Your task to perform on an android device: delete the emails in spam in the gmail app Image 0: 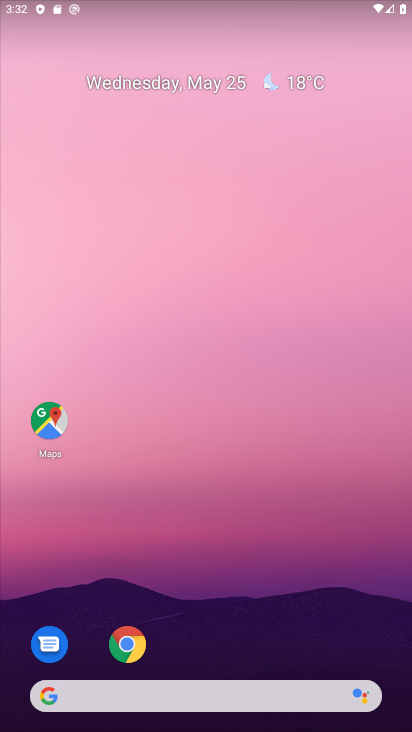
Step 0: drag from (257, 587) to (212, 175)
Your task to perform on an android device: delete the emails in spam in the gmail app Image 1: 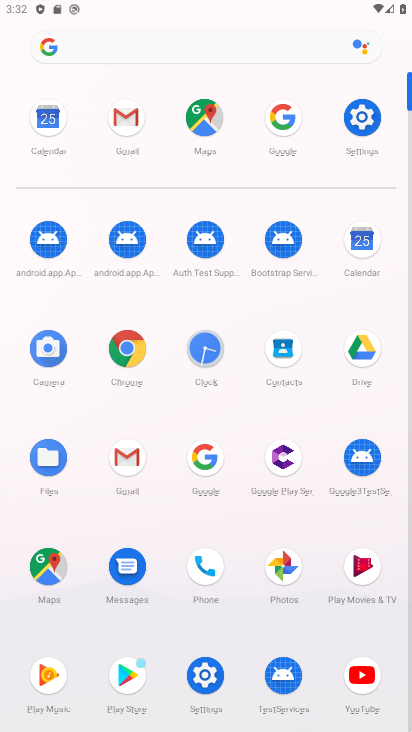
Step 1: click (124, 116)
Your task to perform on an android device: delete the emails in spam in the gmail app Image 2: 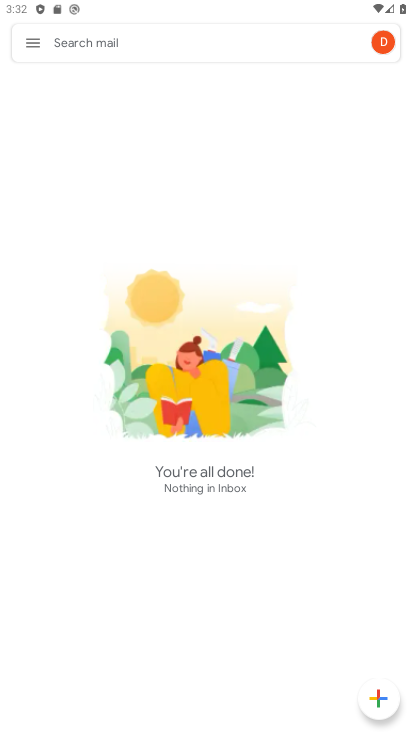
Step 2: click (31, 42)
Your task to perform on an android device: delete the emails in spam in the gmail app Image 3: 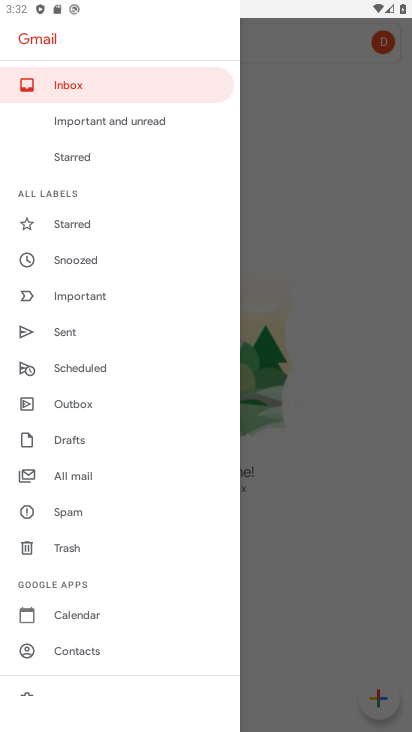
Step 3: click (80, 514)
Your task to perform on an android device: delete the emails in spam in the gmail app Image 4: 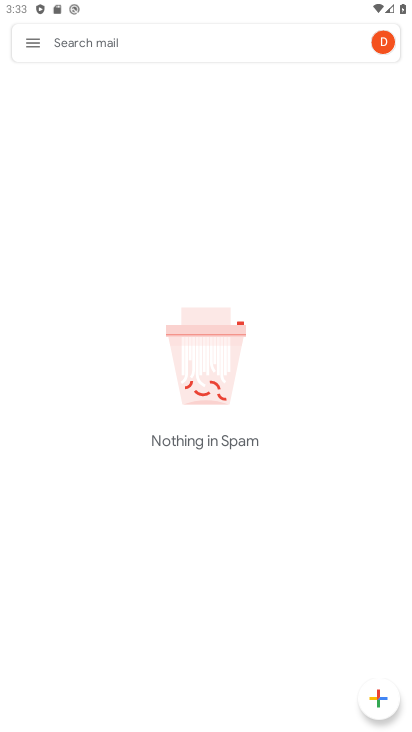
Step 4: task complete